Your task to perform on an android device: find snoozed emails in the gmail app Image 0: 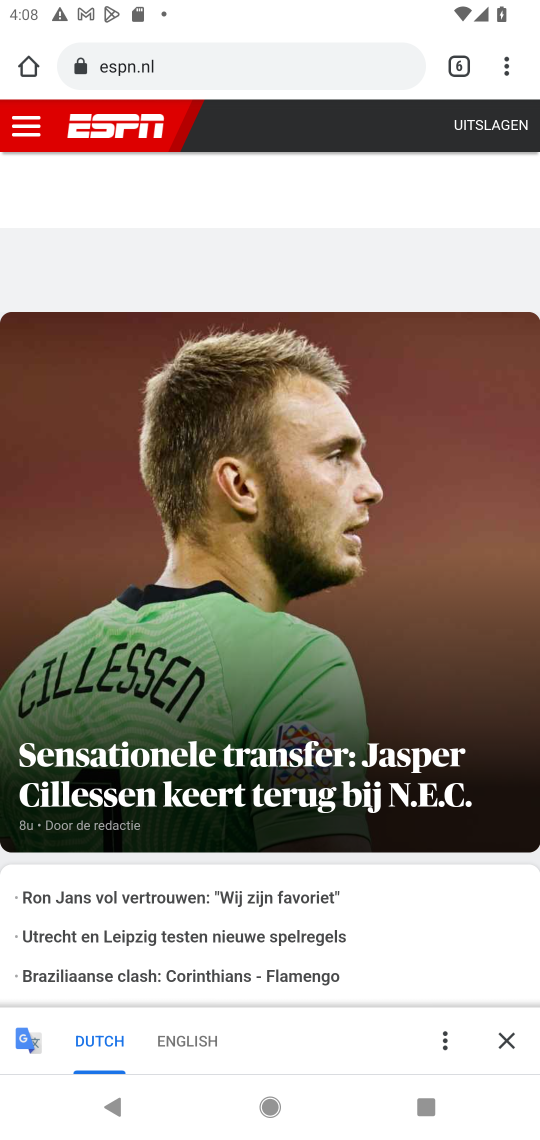
Step 0: press home button
Your task to perform on an android device: find snoozed emails in the gmail app Image 1: 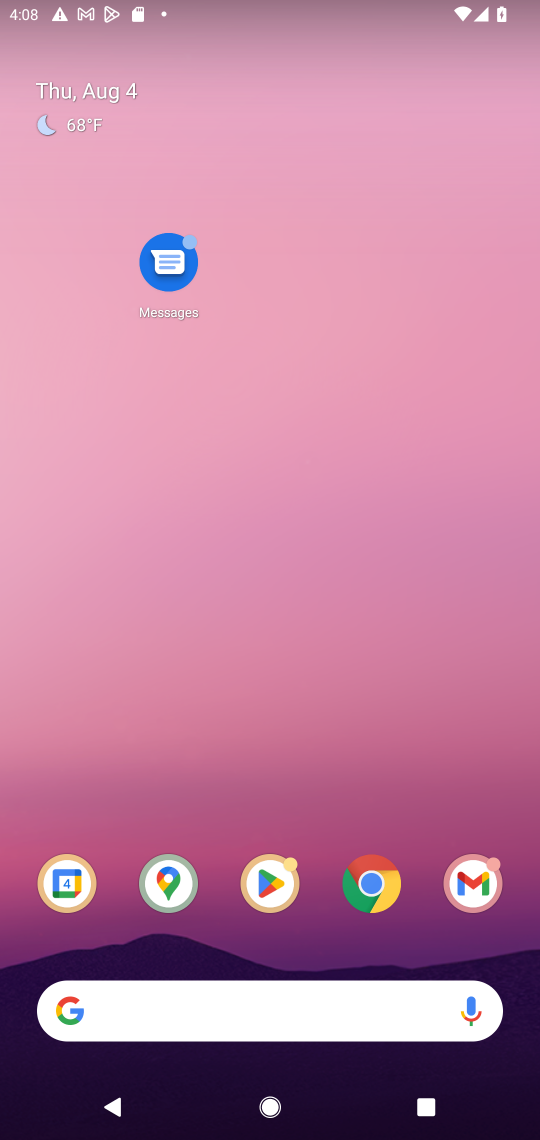
Step 1: drag from (339, 974) to (319, 126)
Your task to perform on an android device: find snoozed emails in the gmail app Image 2: 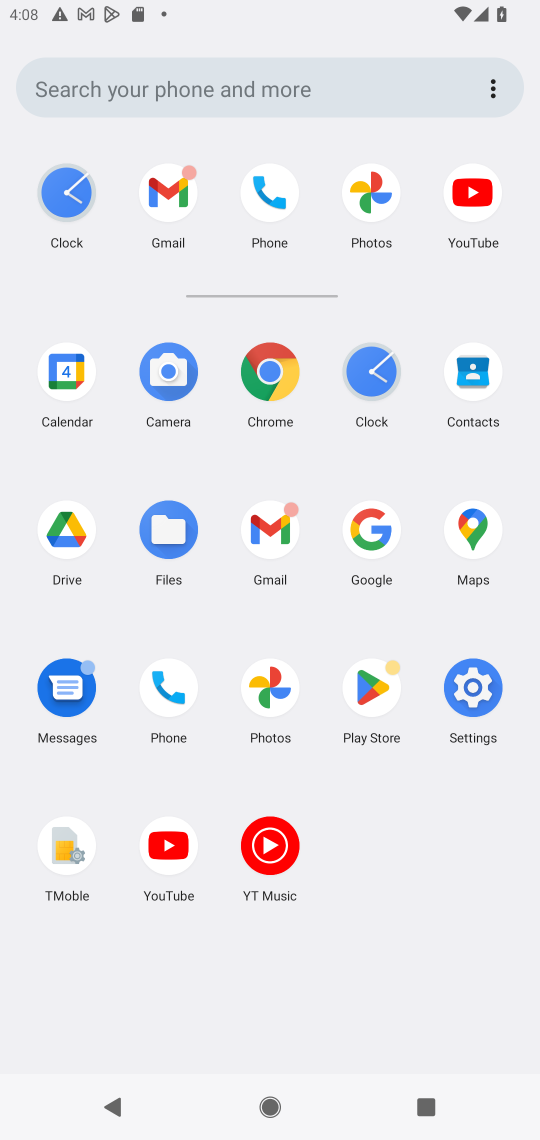
Step 2: click (272, 534)
Your task to perform on an android device: find snoozed emails in the gmail app Image 3: 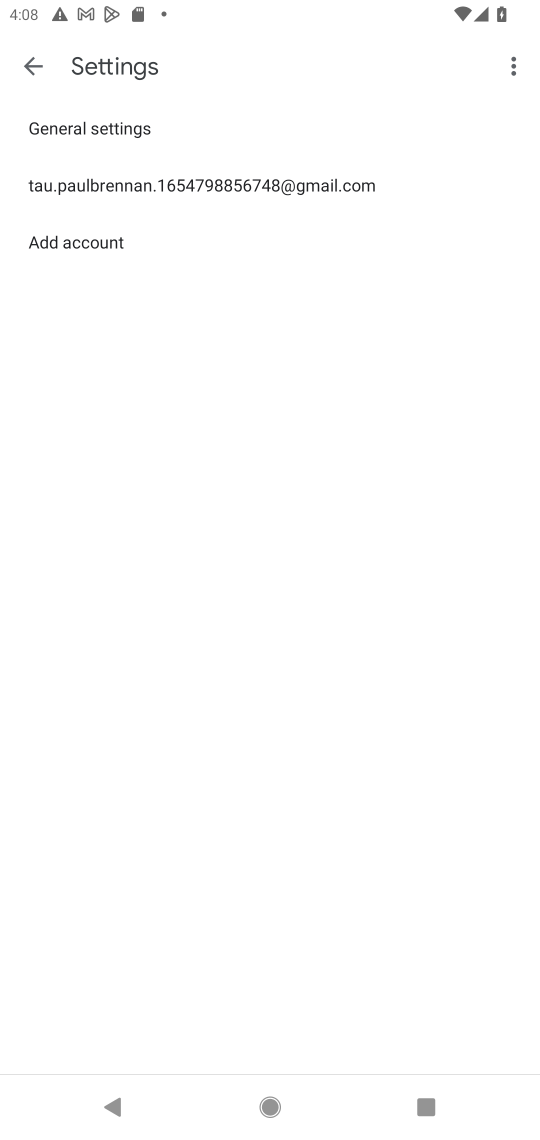
Step 3: click (38, 71)
Your task to perform on an android device: find snoozed emails in the gmail app Image 4: 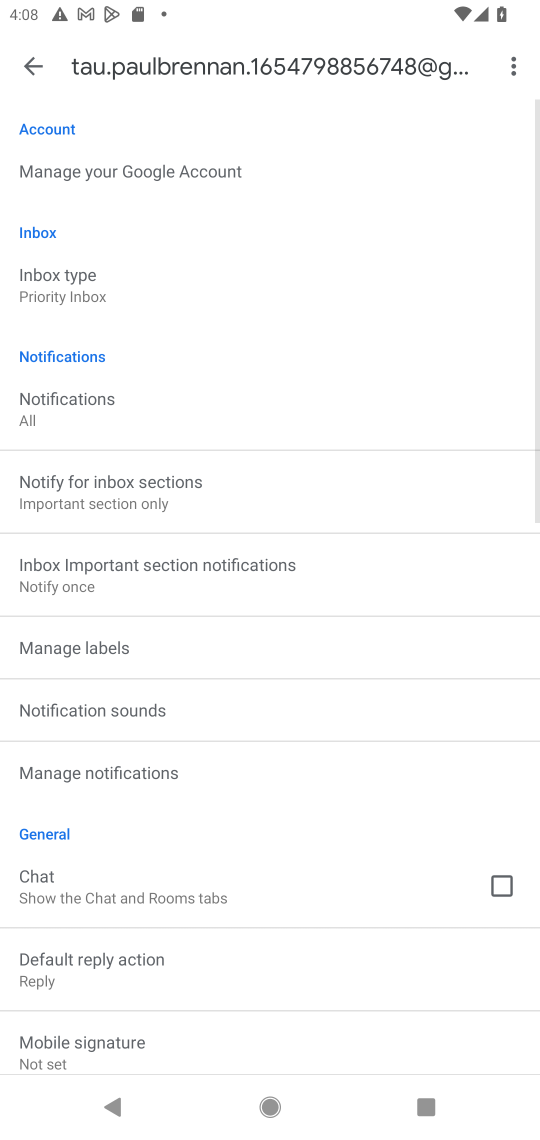
Step 4: click (33, 71)
Your task to perform on an android device: find snoozed emails in the gmail app Image 5: 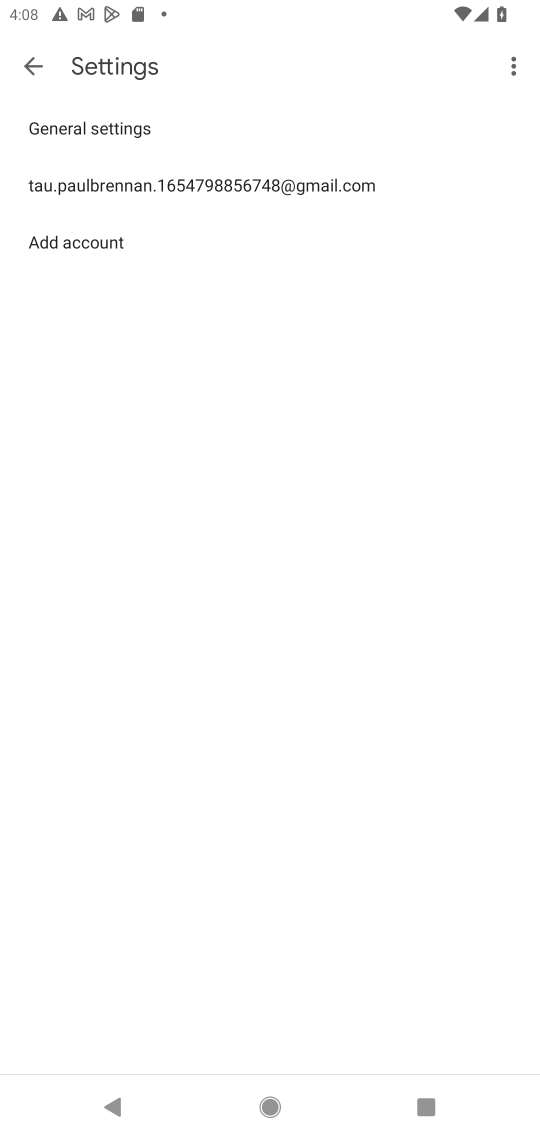
Step 5: click (34, 63)
Your task to perform on an android device: find snoozed emails in the gmail app Image 6: 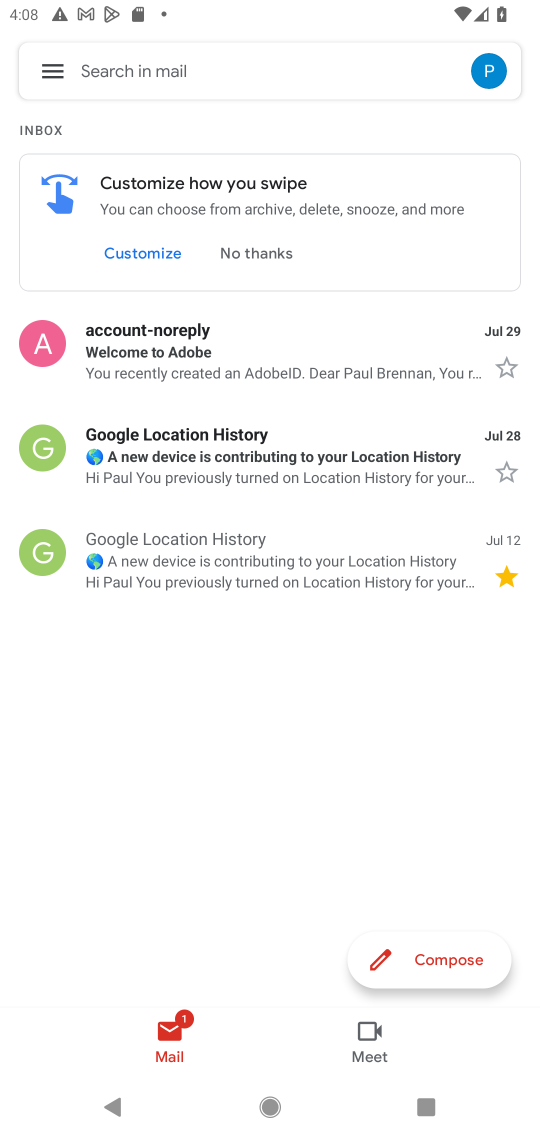
Step 6: click (53, 70)
Your task to perform on an android device: find snoozed emails in the gmail app Image 7: 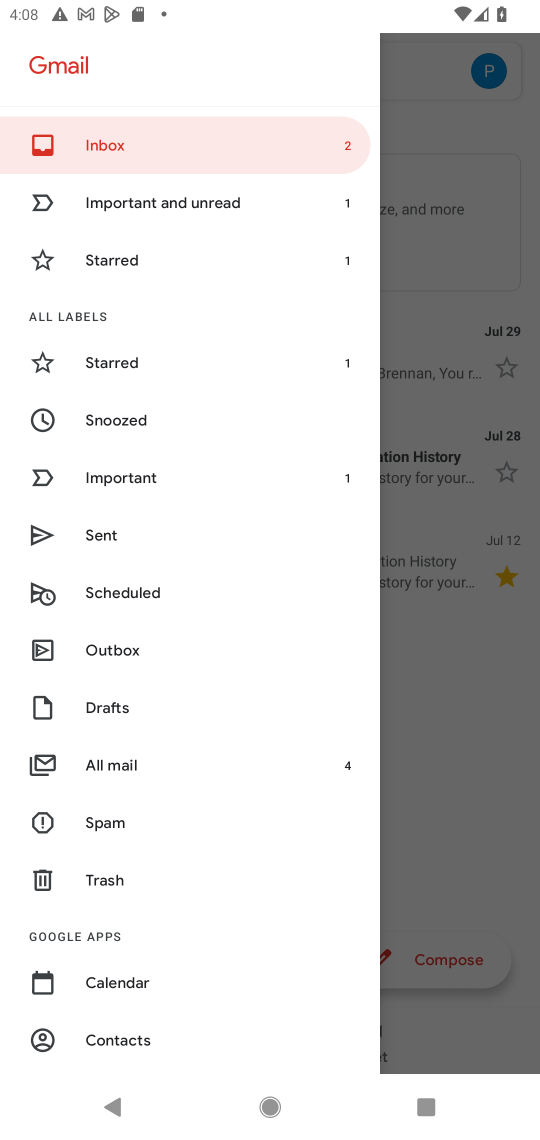
Step 7: click (120, 416)
Your task to perform on an android device: find snoozed emails in the gmail app Image 8: 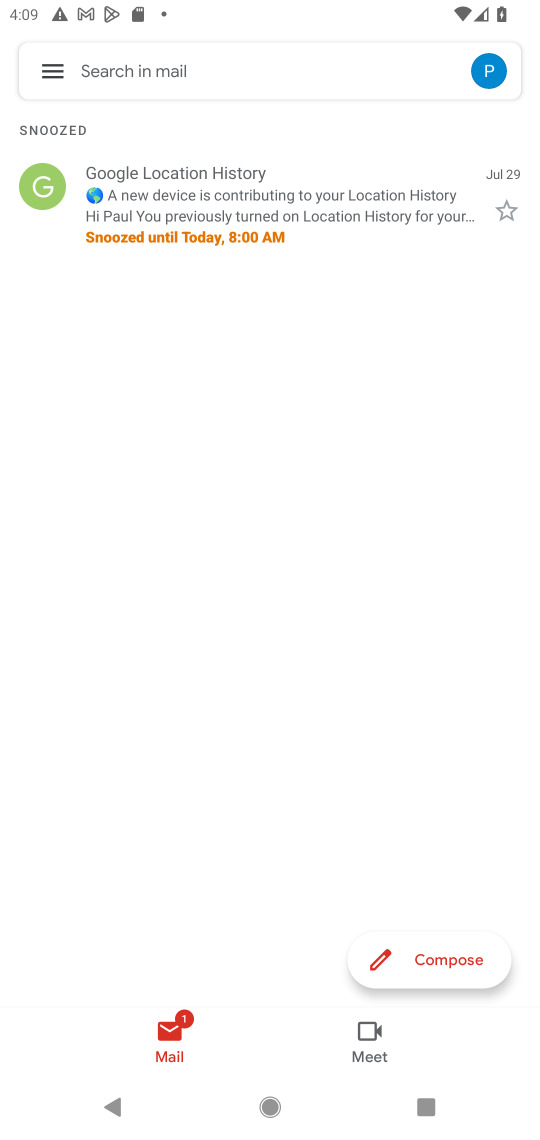
Step 8: task complete